Your task to perform on an android device: read, delete, or share a saved page in the chrome app Image 0: 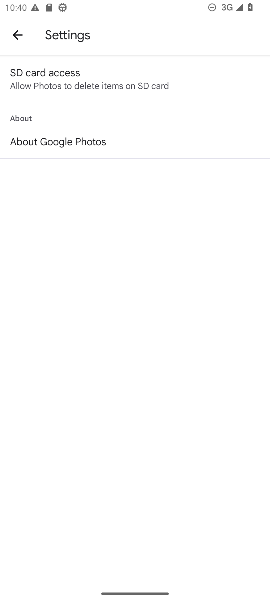
Step 0: press home button
Your task to perform on an android device: read, delete, or share a saved page in the chrome app Image 1: 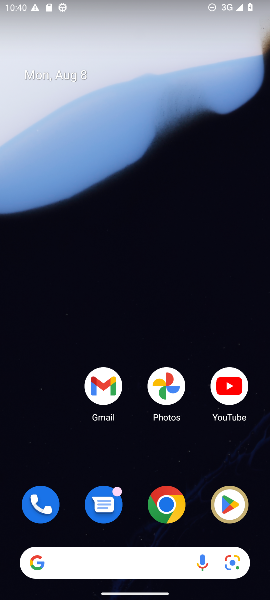
Step 1: drag from (144, 534) to (150, 107)
Your task to perform on an android device: read, delete, or share a saved page in the chrome app Image 2: 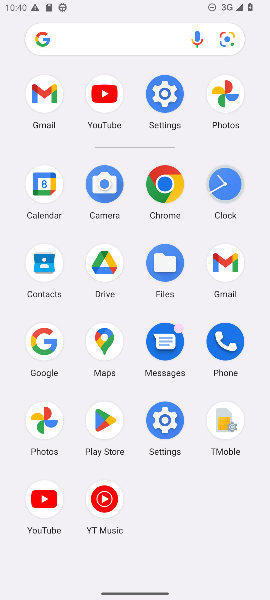
Step 2: click (157, 187)
Your task to perform on an android device: read, delete, or share a saved page in the chrome app Image 3: 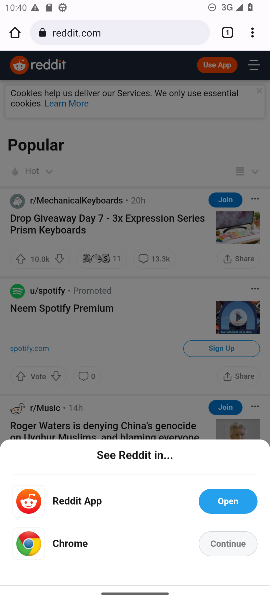
Step 3: click (249, 37)
Your task to perform on an android device: read, delete, or share a saved page in the chrome app Image 4: 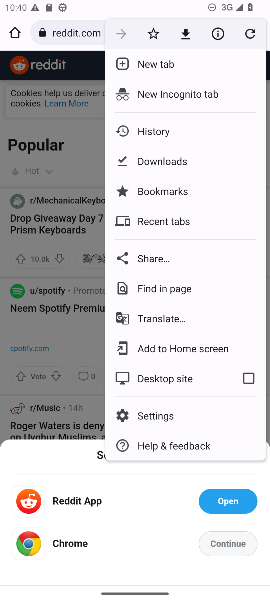
Step 4: click (251, 33)
Your task to perform on an android device: read, delete, or share a saved page in the chrome app Image 5: 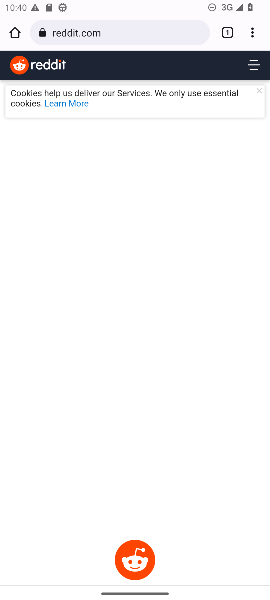
Step 5: click (254, 26)
Your task to perform on an android device: read, delete, or share a saved page in the chrome app Image 6: 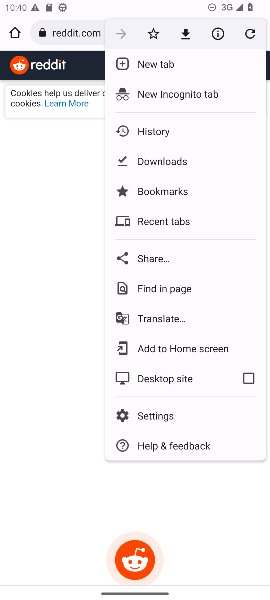
Step 6: click (169, 158)
Your task to perform on an android device: read, delete, or share a saved page in the chrome app Image 7: 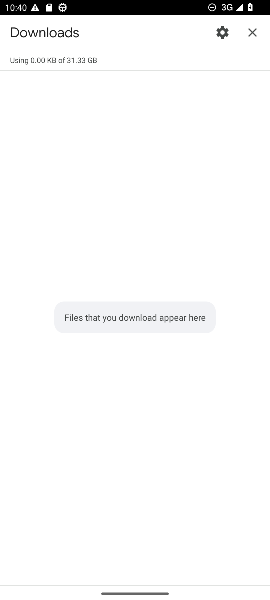
Step 7: task complete